Your task to perform on an android device: change timer sound Image 0: 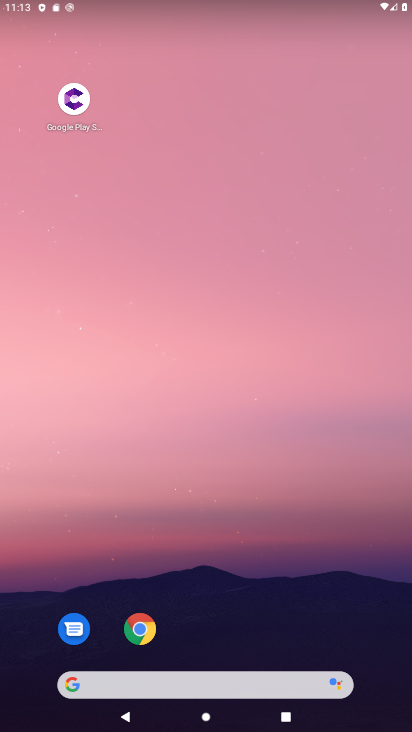
Step 0: drag from (164, 566) to (179, 291)
Your task to perform on an android device: change timer sound Image 1: 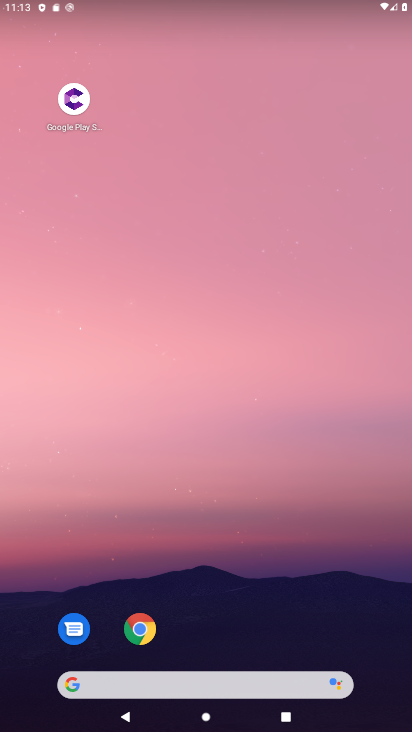
Step 1: drag from (283, 598) to (317, 150)
Your task to perform on an android device: change timer sound Image 2: 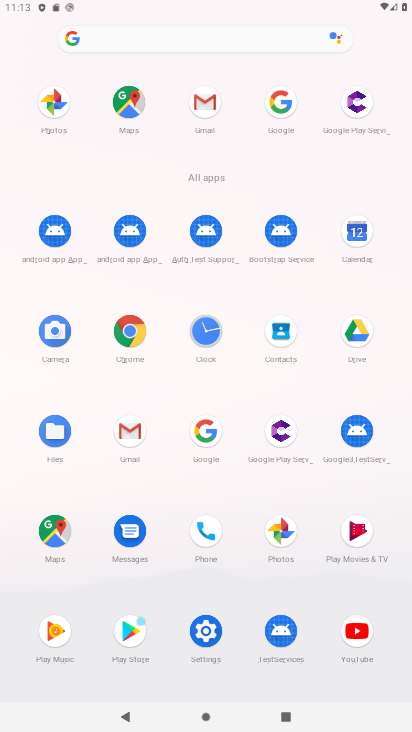
Step 2: click (198, 335)
Your task to perform on an android device: change timer sound Image 3: 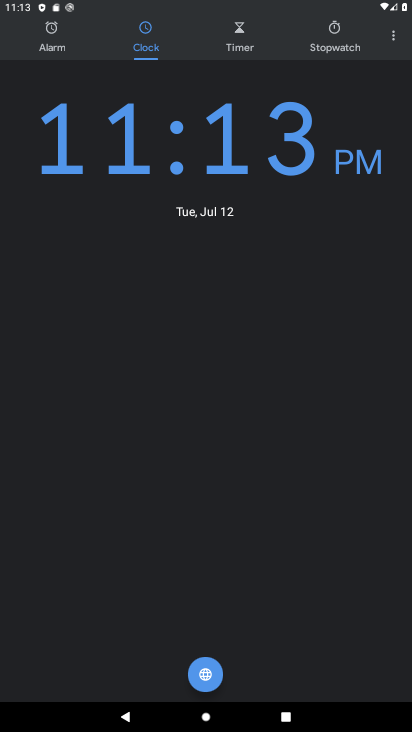
Step 3: click (393, 42)
Your task to perform on an android device: change timer sound Image 4: 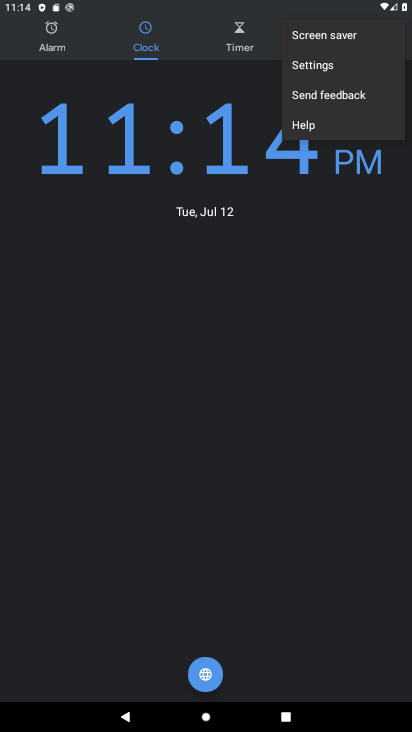
Step 4: click (332, 55)
Your task to perform on an android device: change timer sound Image 5: 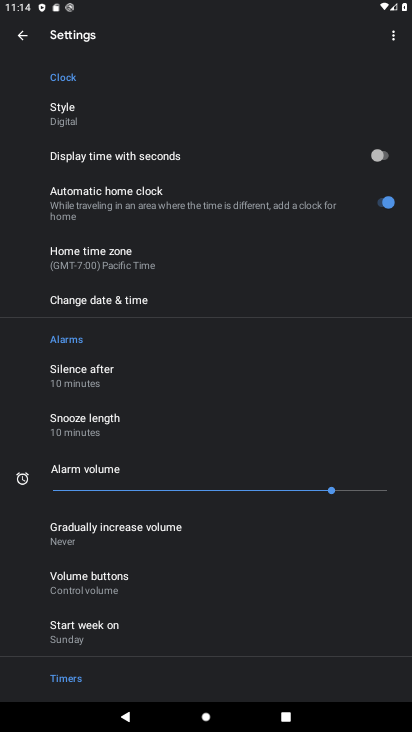
Step 5: drag from (92, 616) to (100, 235)
Your task to perform on an android device: change timer sound Image 6: 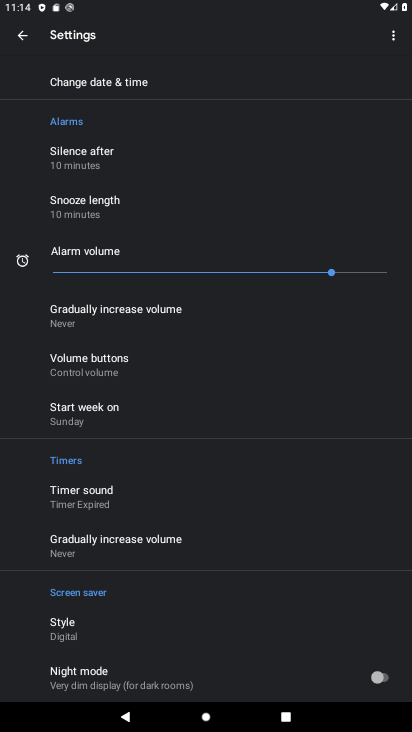
Step 6: click (80, 499)
Your task to perform on an android device: change timer sound Image 7: 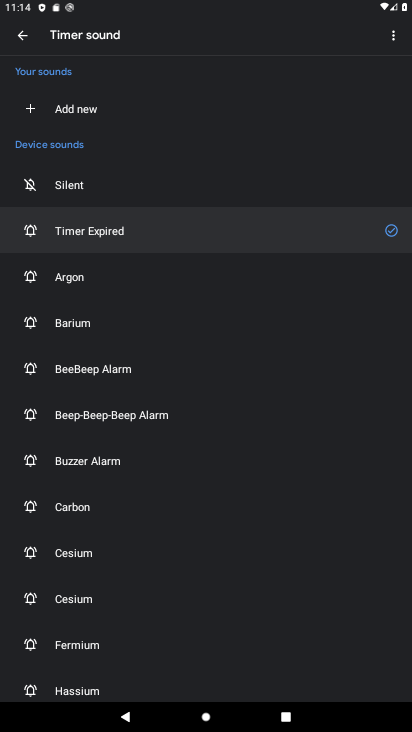
Step 7: click (77, 281)
Your task to perform on an android device: change timer sound Image 8: 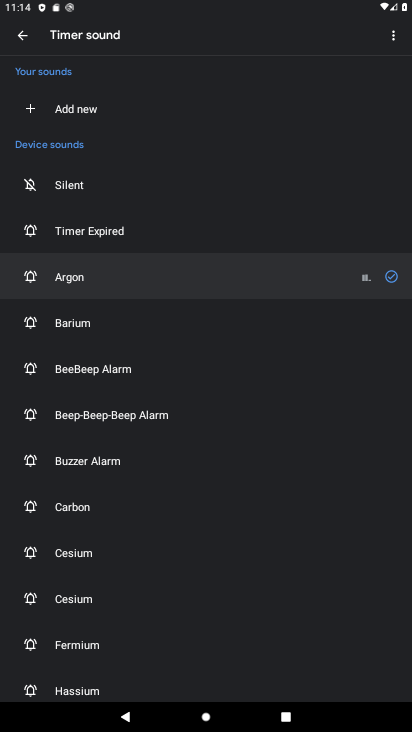
Step 8: task complete